Your task to perform on an android device: Search for vegetarian restaurants on Maps Image 0: 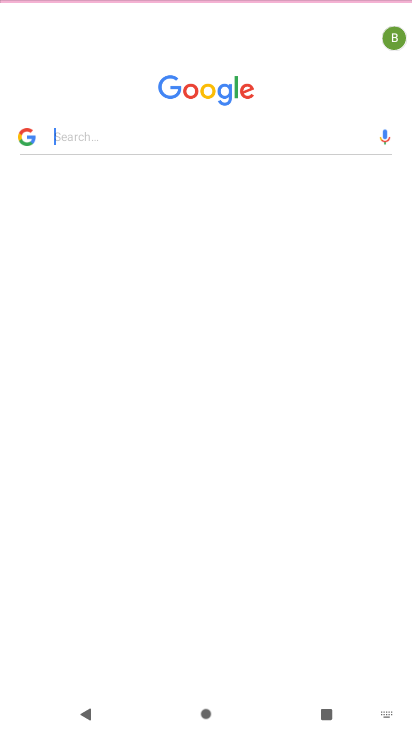
Step 0: click (371, 206)
Your task to perform on an android device: Search for vegetarian restaurants on Maps Image 1: 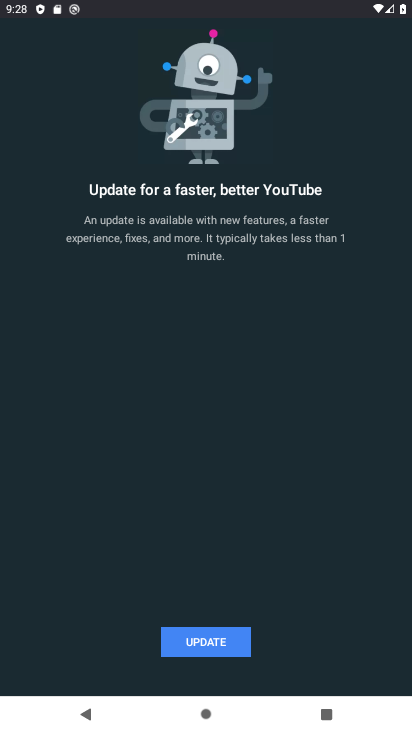
Step 1: press back button
Your task to perform on an android device: Search for vegetarian restaurants on Maps Image 2: 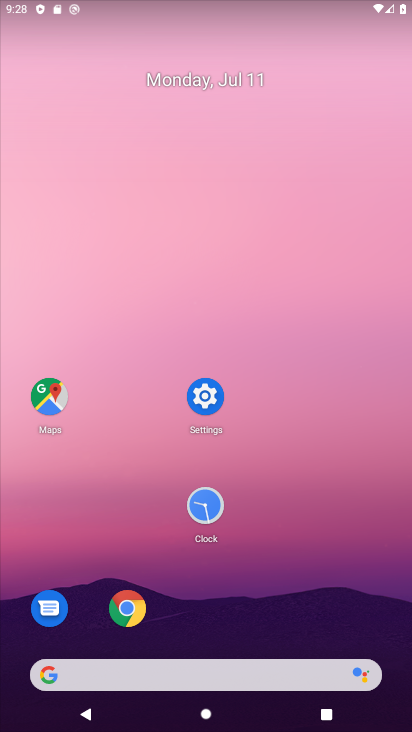
Step 2: click (108, 408)
Your task to perform on an android device: Search for vegetarian restaurants on Maps Image 3: 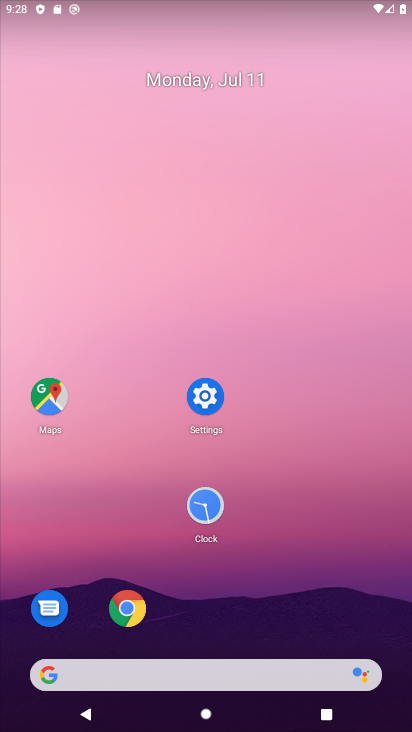
Step 3: click (33, 409)
Your task to perform on an android device: Search for vegetarian restaurants on Maps Image 4: 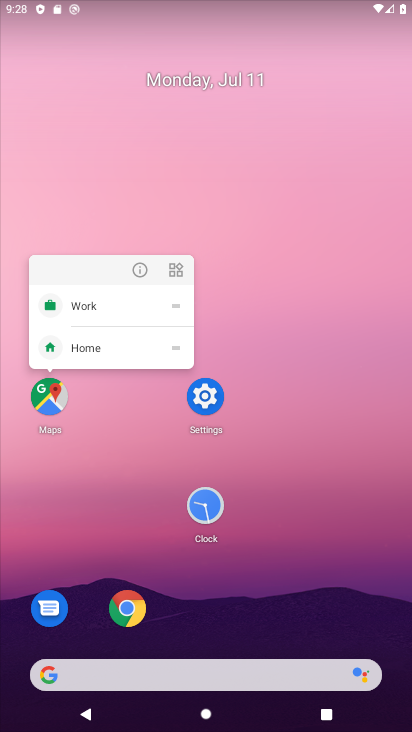
Step 4: click (42, 404)
Your task to perform on an android device: Search for vegetarian restaurants on Maps Image 5: 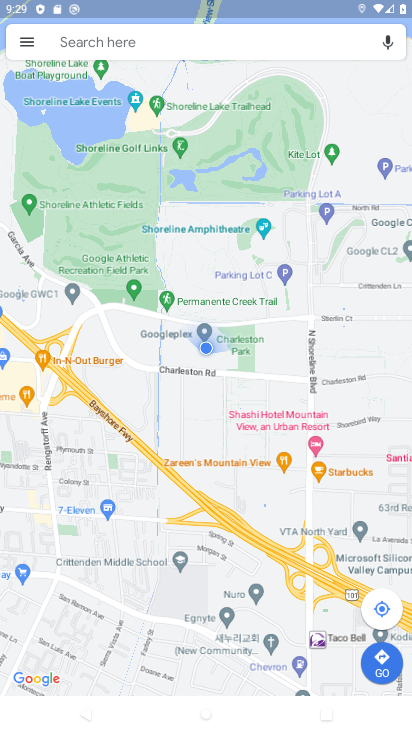
Step 5: click (143, 36)
Your task to perform on an android device: Search for vegetarian restaurants on Maps Image 6: 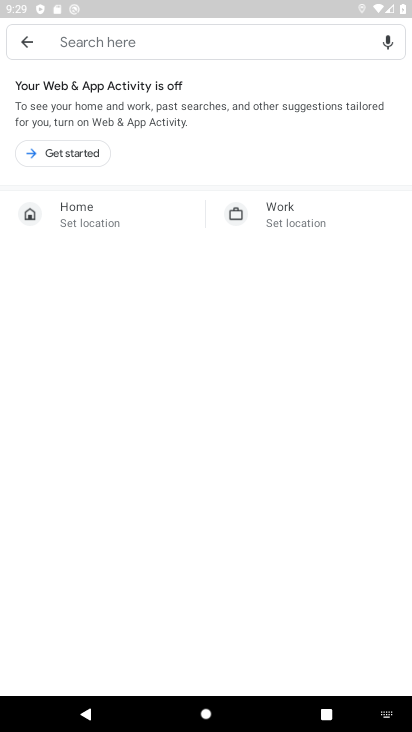
Step 6: type "vegetarian restaurants"
Your task to perform on an android device: Search for vegetarian restaurants on Maps Image 7: 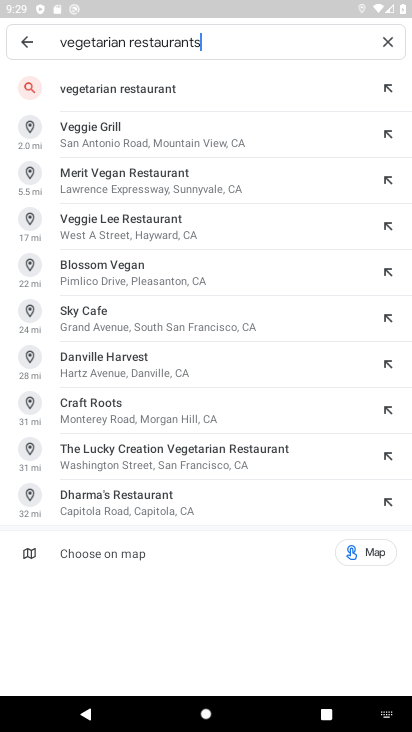
Step 7: click (130, 93)
Your task to perform on an android device: Search for vegetarian restaurants on Maps Image 8: 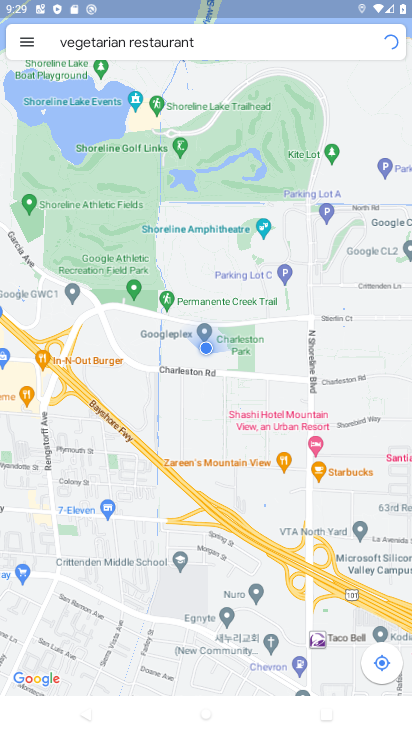
Step 8: task complete